Your task to perform on an android device: Go to CNN.com Image 0: 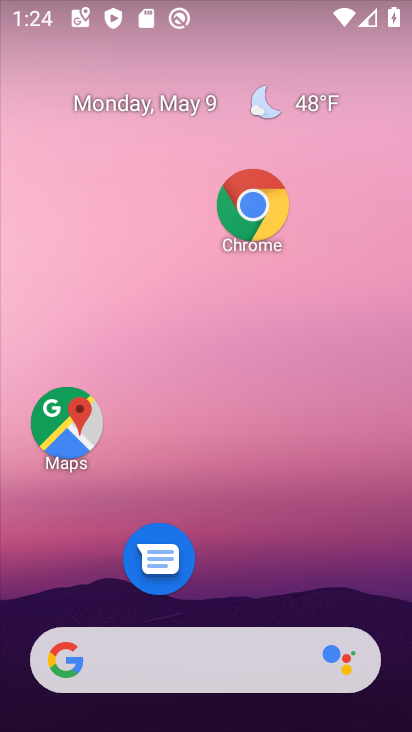
Step 0: drag from (307, 570) to (356, 208)
Your task to perform on an android device: Go to CNN.com Image 1: 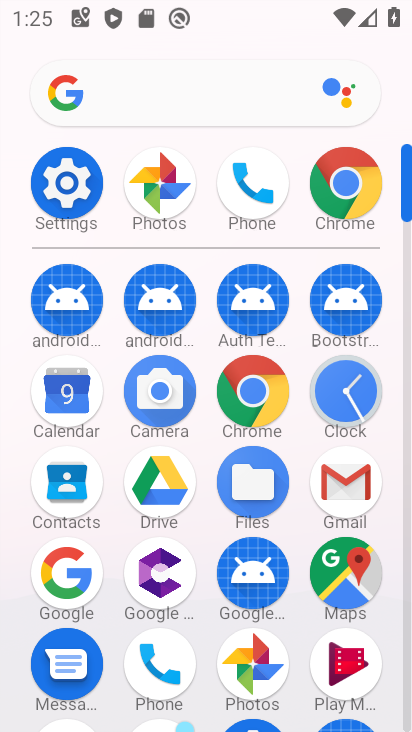
Step 1: click (251, 397)
Your task to perform on an android device: Go to CNN.com Image 2: 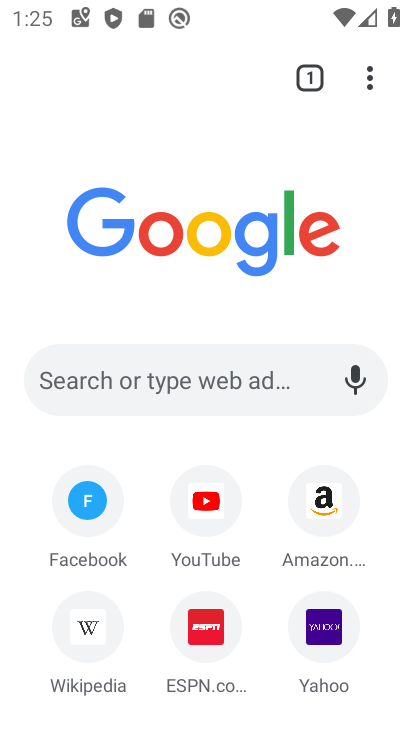
Step 2: click (230, 377)
Your task to perform on an android device: Go to CNN.com Image 3: 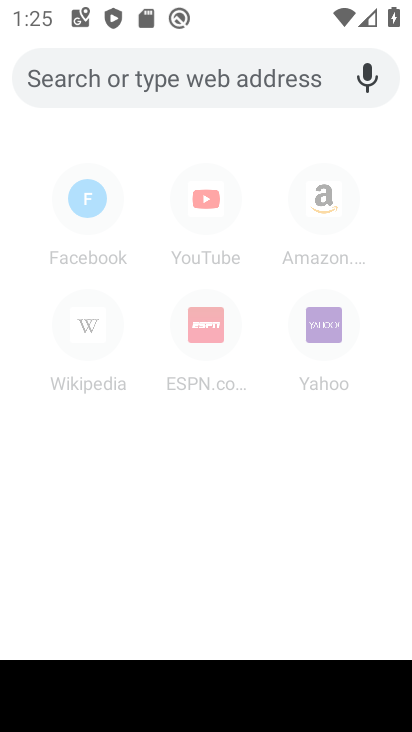
Step 3: type "CNN.com"
Your task to perform on an android device: Go to CNN.com Image 4: 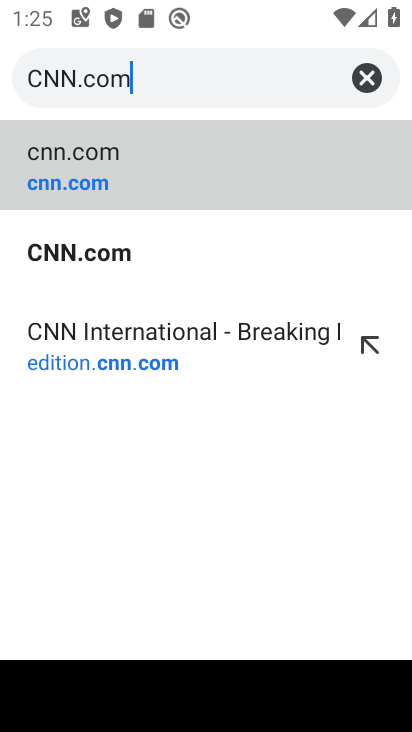
Step 4: click (167, 248)
Your task to perform on an android device: Go to CNN.com Image 5: 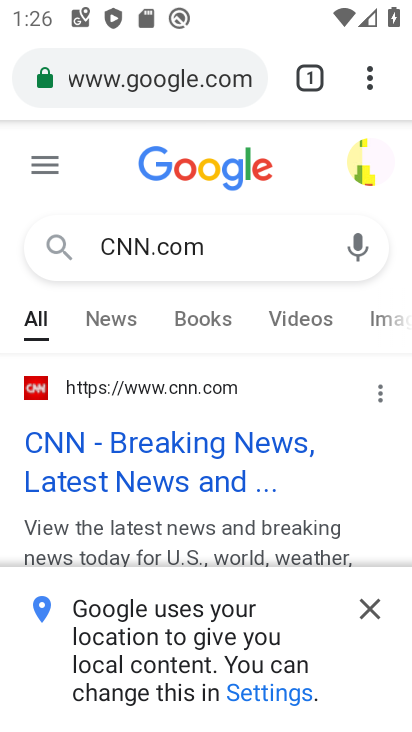
Step 5: click (369, 621)
Your task to perform on an android device: Go to CNN.com Image 6: 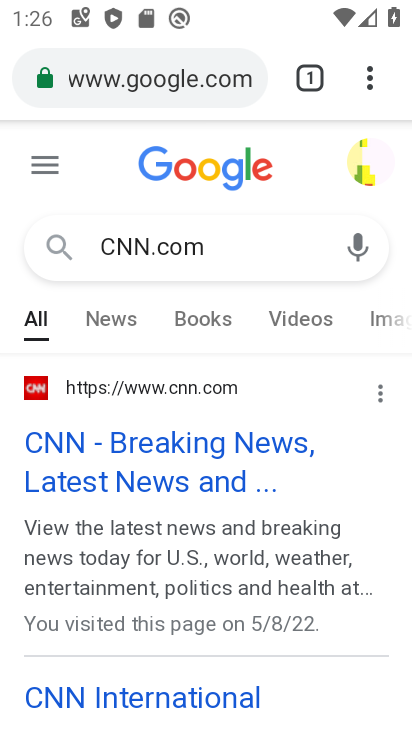
Step 6: task complete